Your task to perform on an android device: change keyboard looks Image 0: 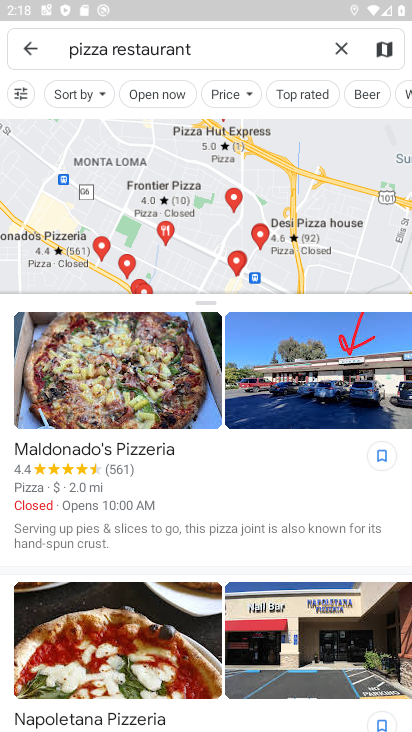
Step 0: press home button
Your task to perform on an android device: change keyboard looks Image 1: 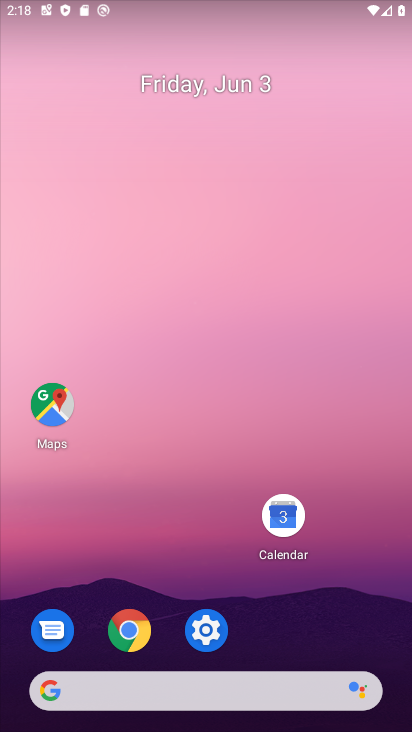
Step 1: drag from (255, 703) to (256, 170)
Your task to perform on an android device: change keyboard looks Image 2: 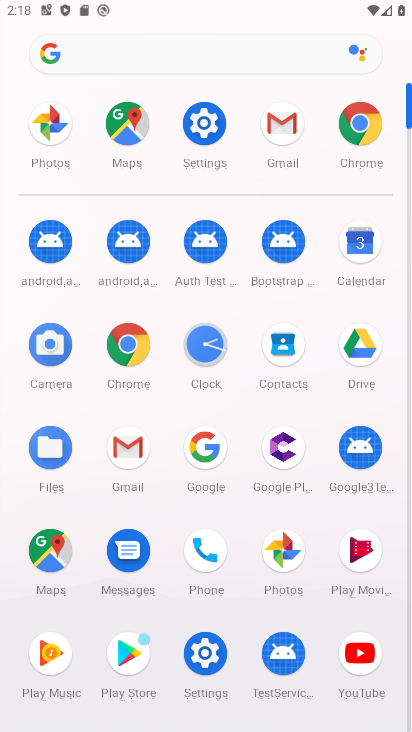
Step 2: click (193, 136)
Your task to perform on an android device: change keyboard looks Image 3: 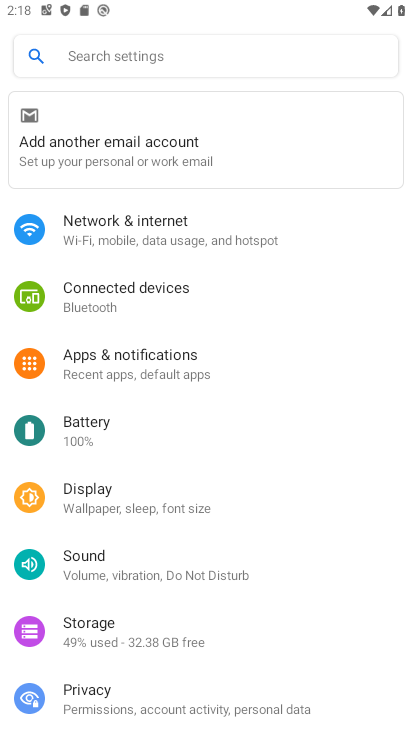
Step 3: click (94, 51)
Your task to perform on an android device: change keyboard looks Image 4: 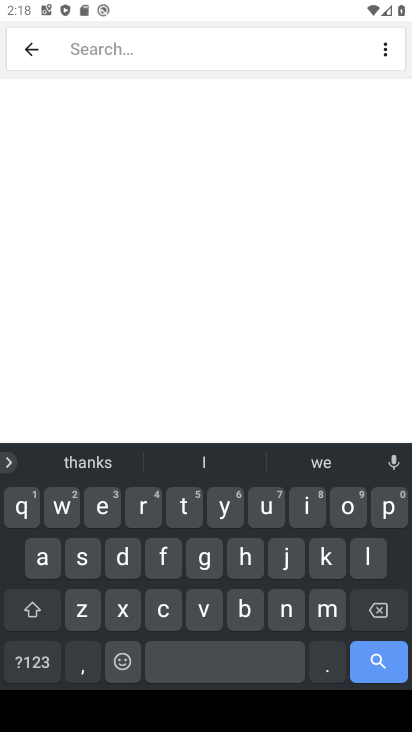
Step 4: click (323, 543)
Your task to perform on an android device: change keyboard looks Image 5: 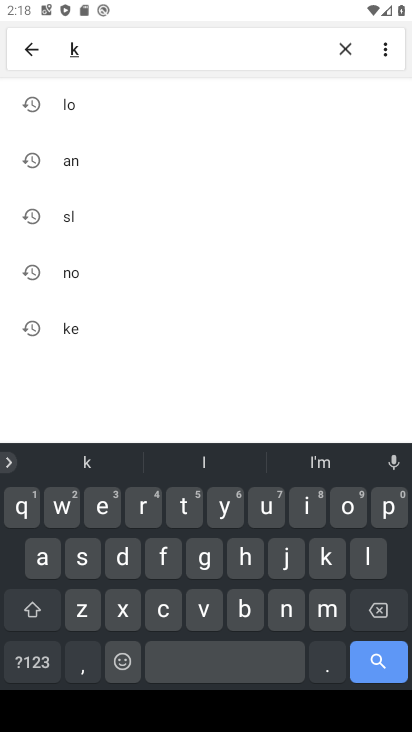
Step 5: click (110, 504)
Your task to perform on an android device: change keyboard looks Image 6: 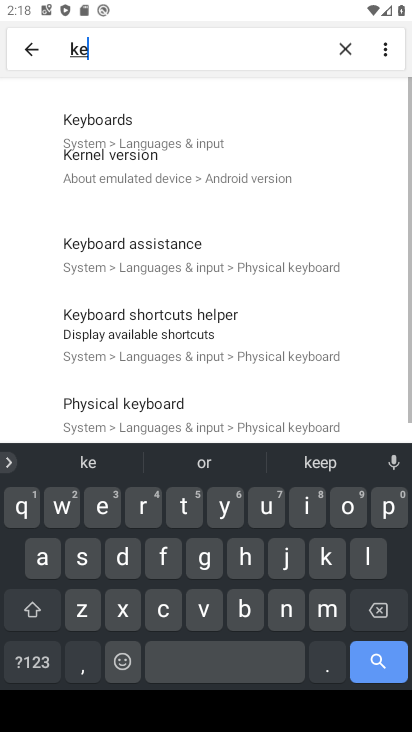
Step 6: click (240, 513)
Your task to perform on an android device: change keyboard looks Image 7: 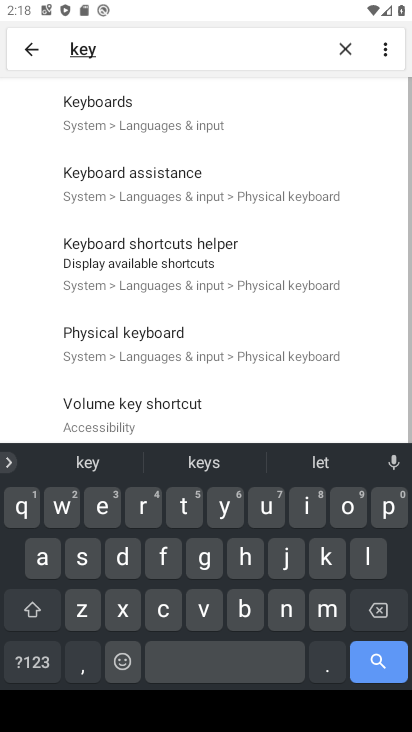
Step 7: click (156, 125)
Your task to perform on an android device: change keyboard looks Image 8: 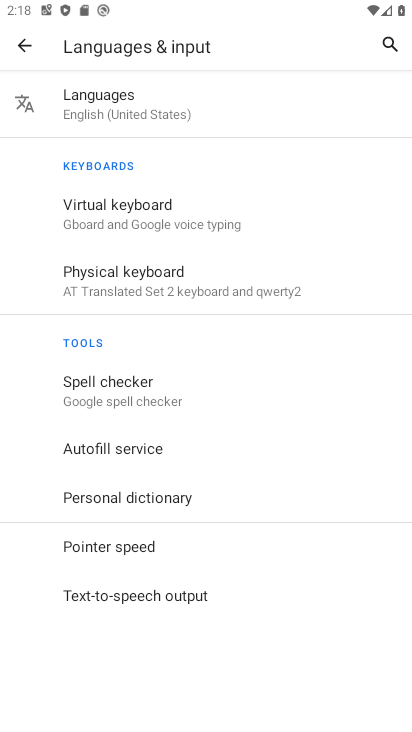
Step 8: click (166, 181)
Your task to perform on an android device: change keyboard looks Image 9: 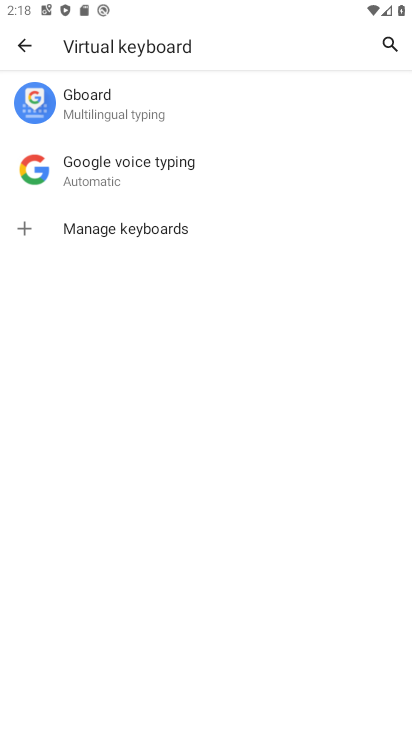
Step 9: click (100, 110)
Your task to perform on an android device: change keyboard looks Image 10: 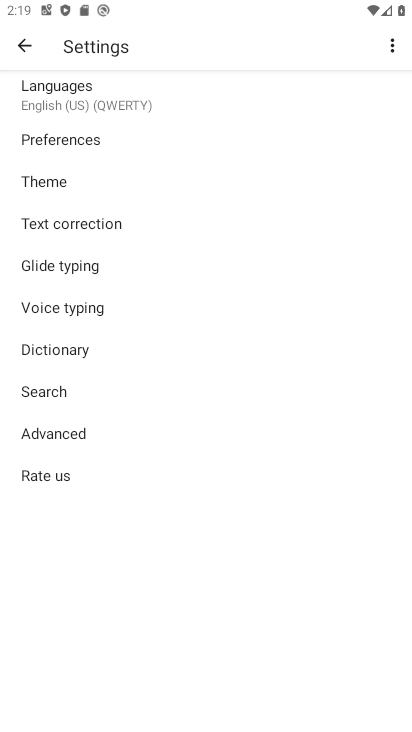
Step 10: click (85, 180)
Your task to perform on an android device: change keyboard looks Image 11: 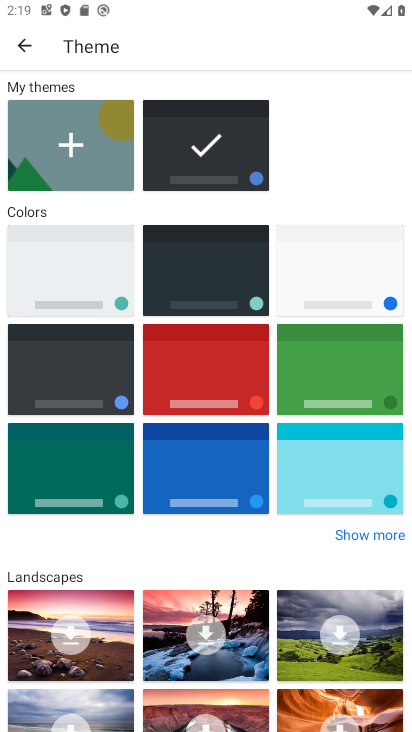
Step 11: click (88, 372)
Your task to perform on an android device: change keyboard looks Image 12: 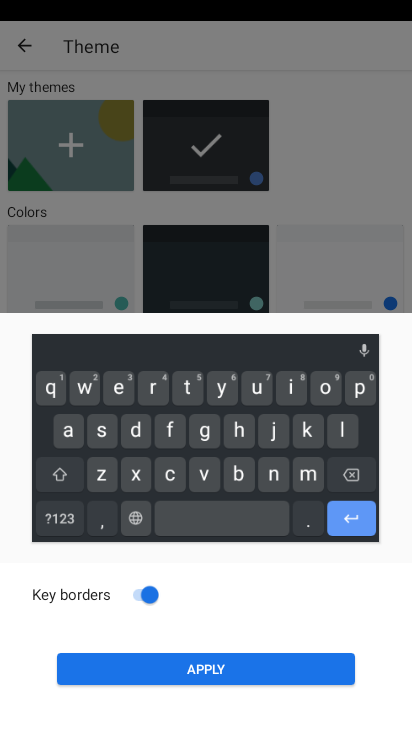
Step 12: click (205, 671)
Your task to perform on an android device: change keyboard looks Image 13: 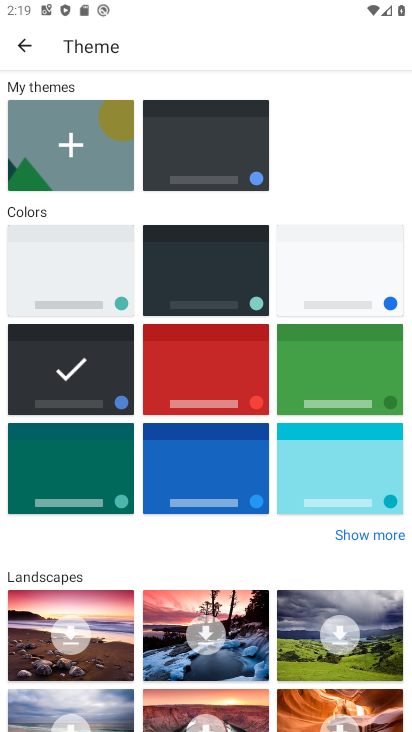
Step 13: task complete